Your task to perform on an android device: When is my next meeting? Image 0: 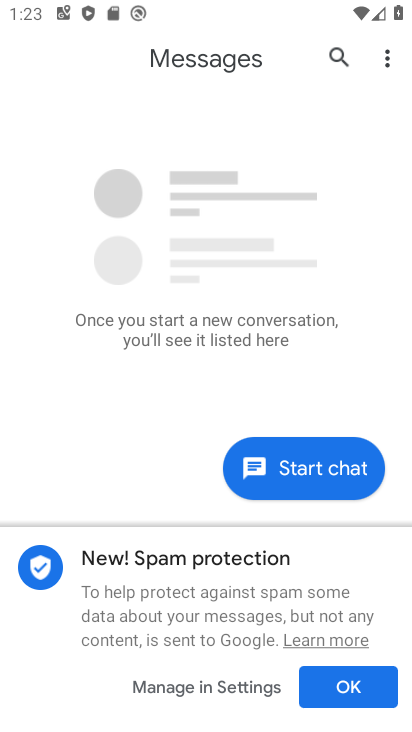
Step 0: press home button
Your task to perform on an android device: When is my next meeting? Image 1: 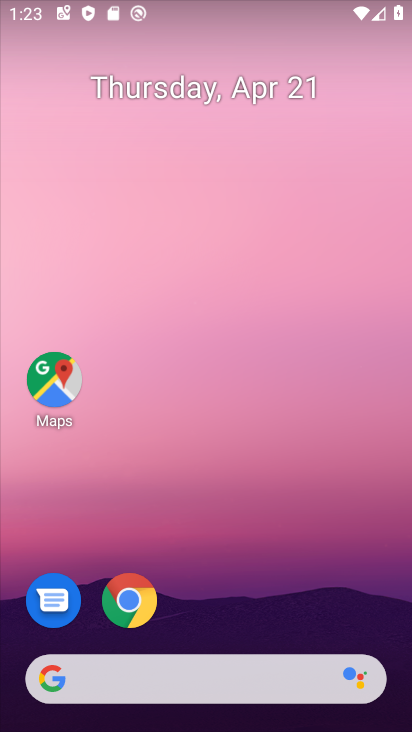
Step 1: drag from (284, 600) to (317, 160)
Your task to perform on an android device: When is my next meeting? Image 2: 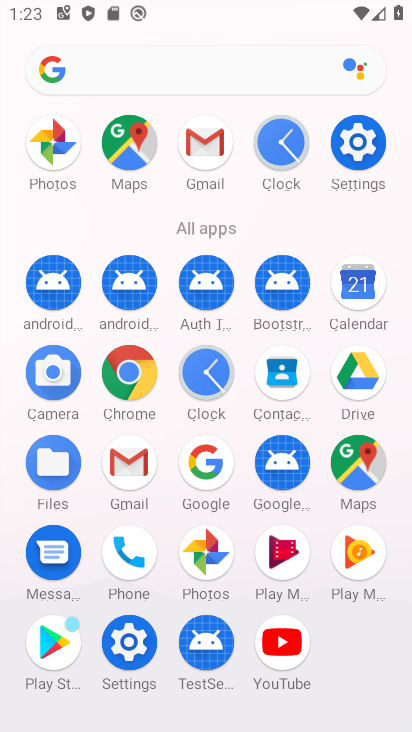
Step 2: click (353, 303)
Your task to perform on an android device: When is my next meeting? Image 3: 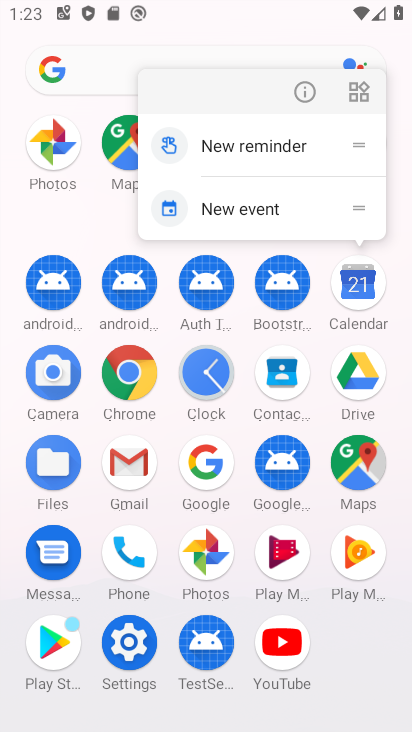
Step 3: click (357, 292)
Your task to perform on an android device: When is my next meeting? Image 4: 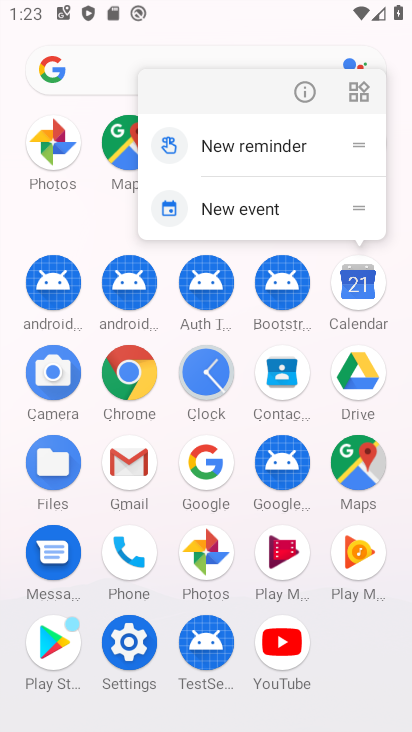
Step 4: click (353, 300)
Your task to perform on an android device: When is my next meeting? Image 5: 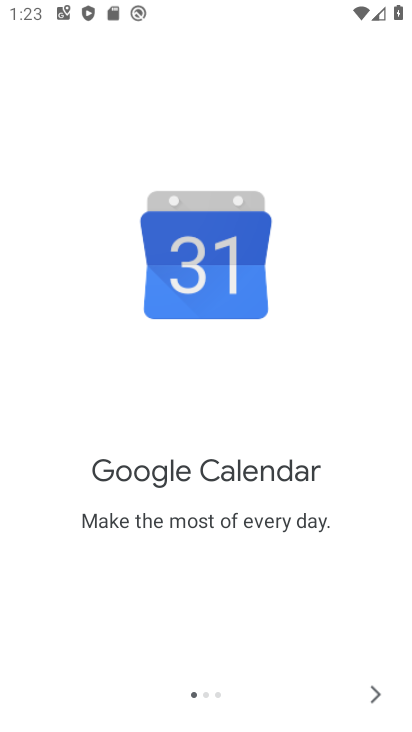
Step 5: click (365, 700)
Your task to perform on an android device: When is my next meeting? Image 6: 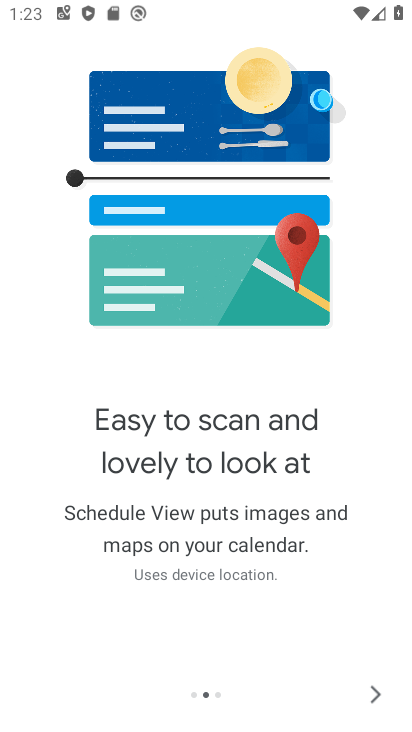
Step 6: click (365, 700)
Your task to perform on an android device: When is my next meeting? Image 7: 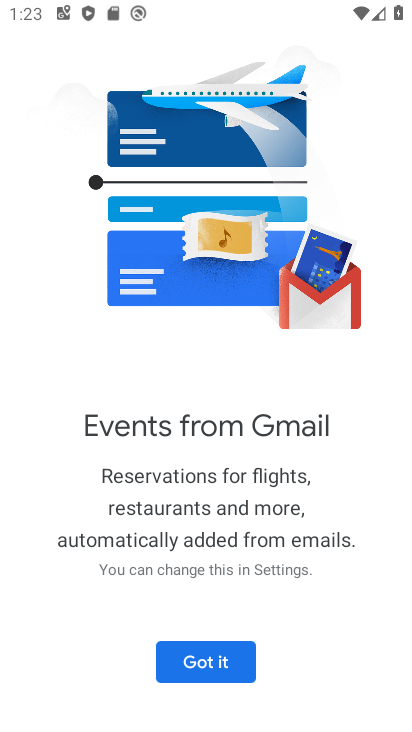
Step 7: click (242, 666)
Your task to perform on an android device: When is my next meeting? Image 8: 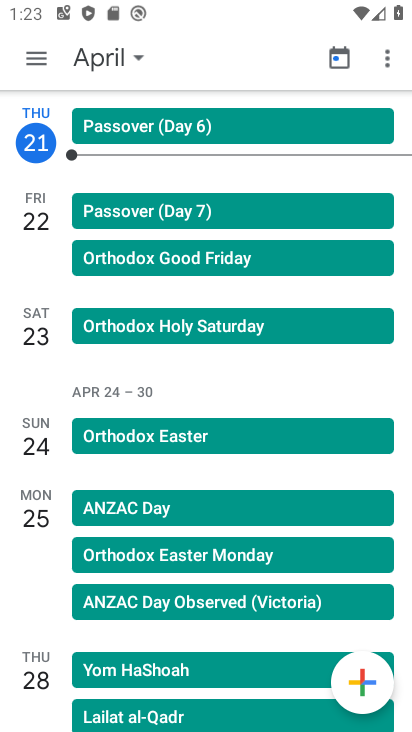
Step 8: task complete